Your task to perform on an android device: change notification settings in the gmail app Image 0: 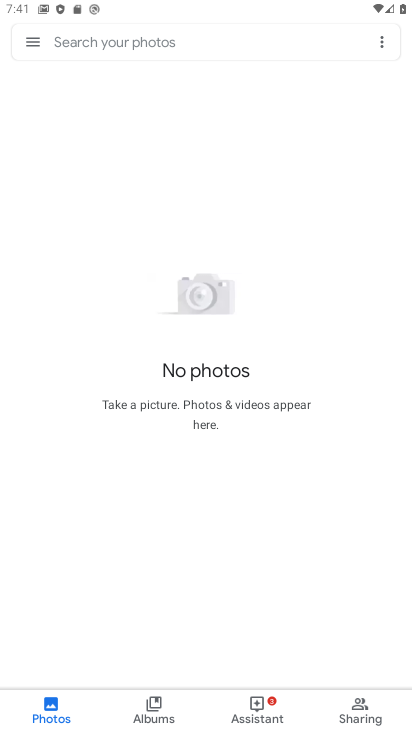
Step 0: press home button
Your task to perform on an android device: change notification settings in the gmail app Image 1: 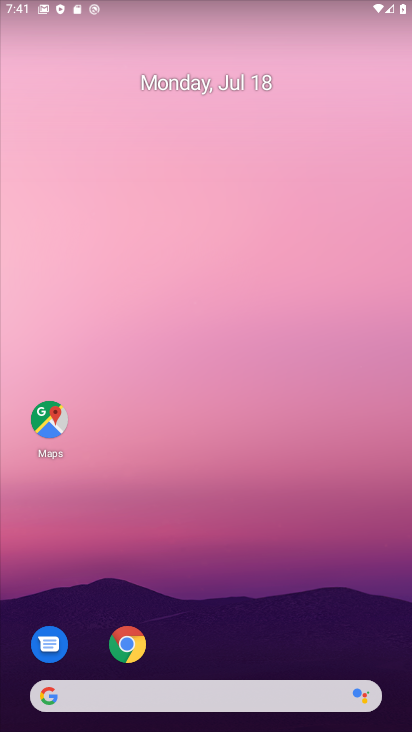
Step 1: drag from (181, 677) to (321, 211)
Your task to perform on an android device: change notification settings in the gmail app Image 2: 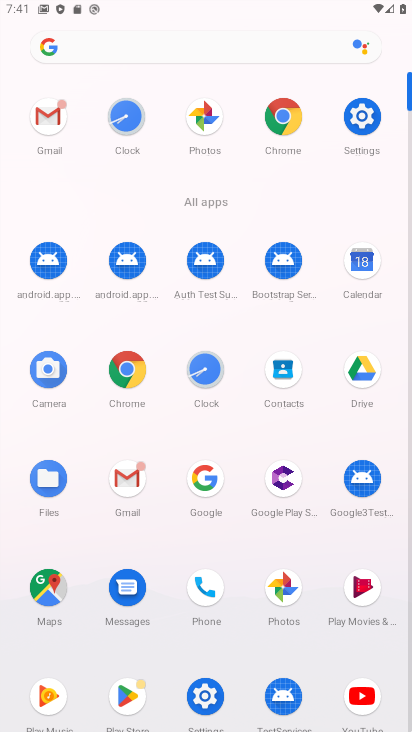
Step 2: click (55, 120)
Your task to perform on an android device: change notification settings in the gmail app Image 3: 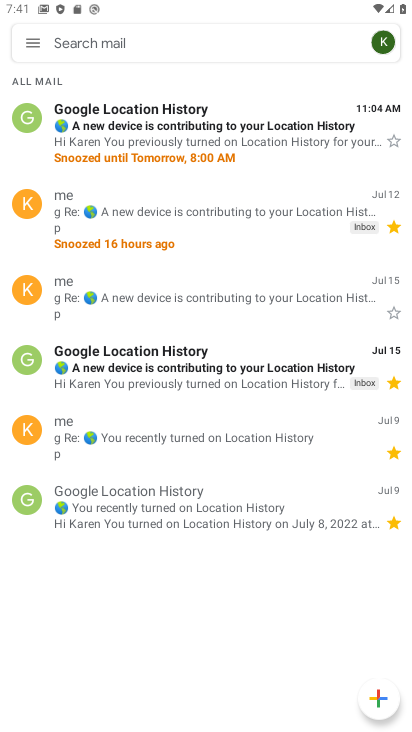
Step 3: click (31, 40)
Your task to perform on an android device: change notification settings in the gmail app Image 4: 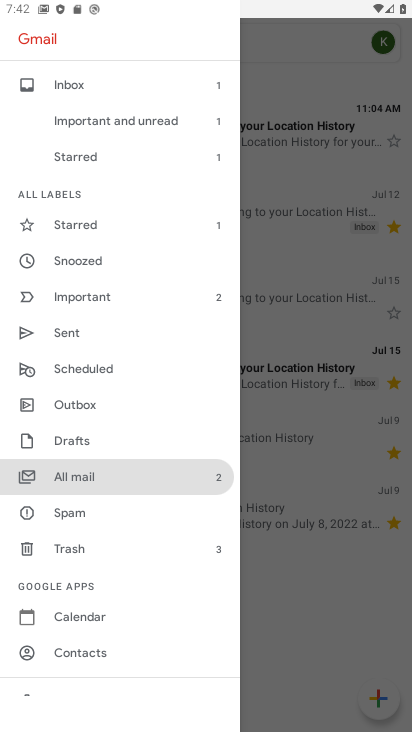
Step 4: drag from (141, 607) to (199, 293)
Your task to perform on an android device: change notification settings in the gmail app Image 5: 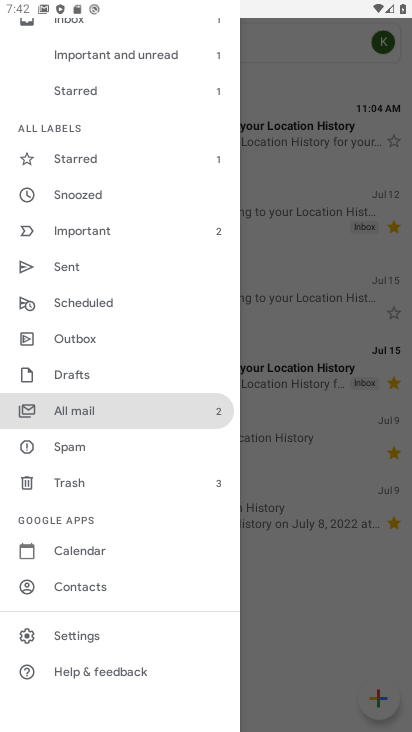
Step 5: click (81, 642)
Your task to perform on an android device: change notification settings in the gmail app Image 6: 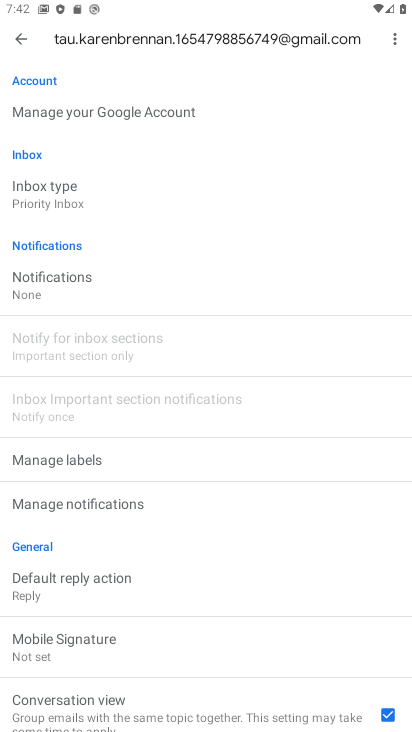
Step 6: click (52, 280)
Your task to perform on an android device: change notification settings in the gmail app Image 7: 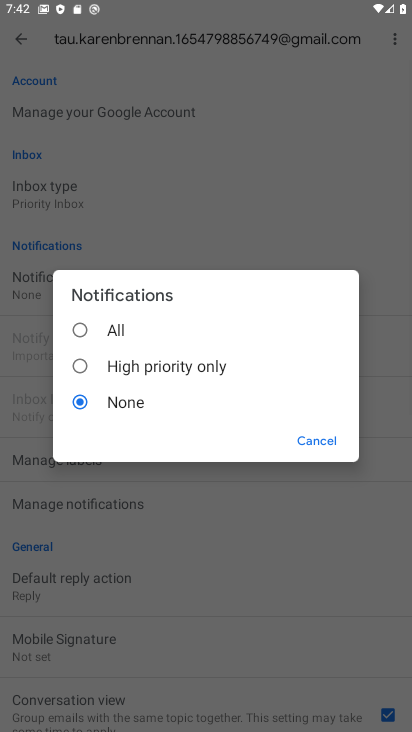
Step 7: click (76, 330)
Your task to perform on an android device: change notification settings in the gmail app Image 8: 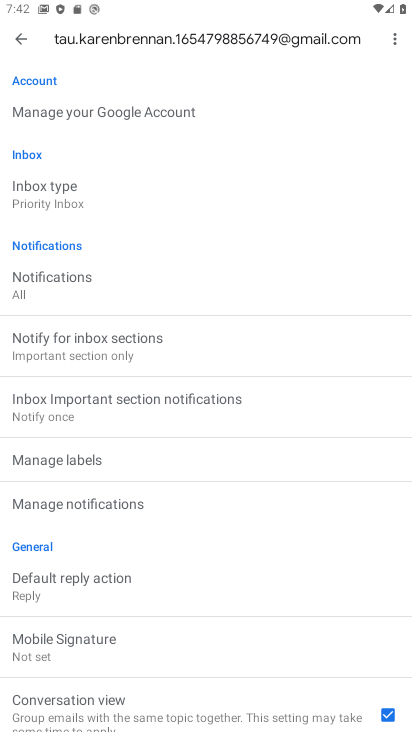
Step 8: task complete